Your task to perform on an android device: turn on notifications settings in the gmail app Image 0: 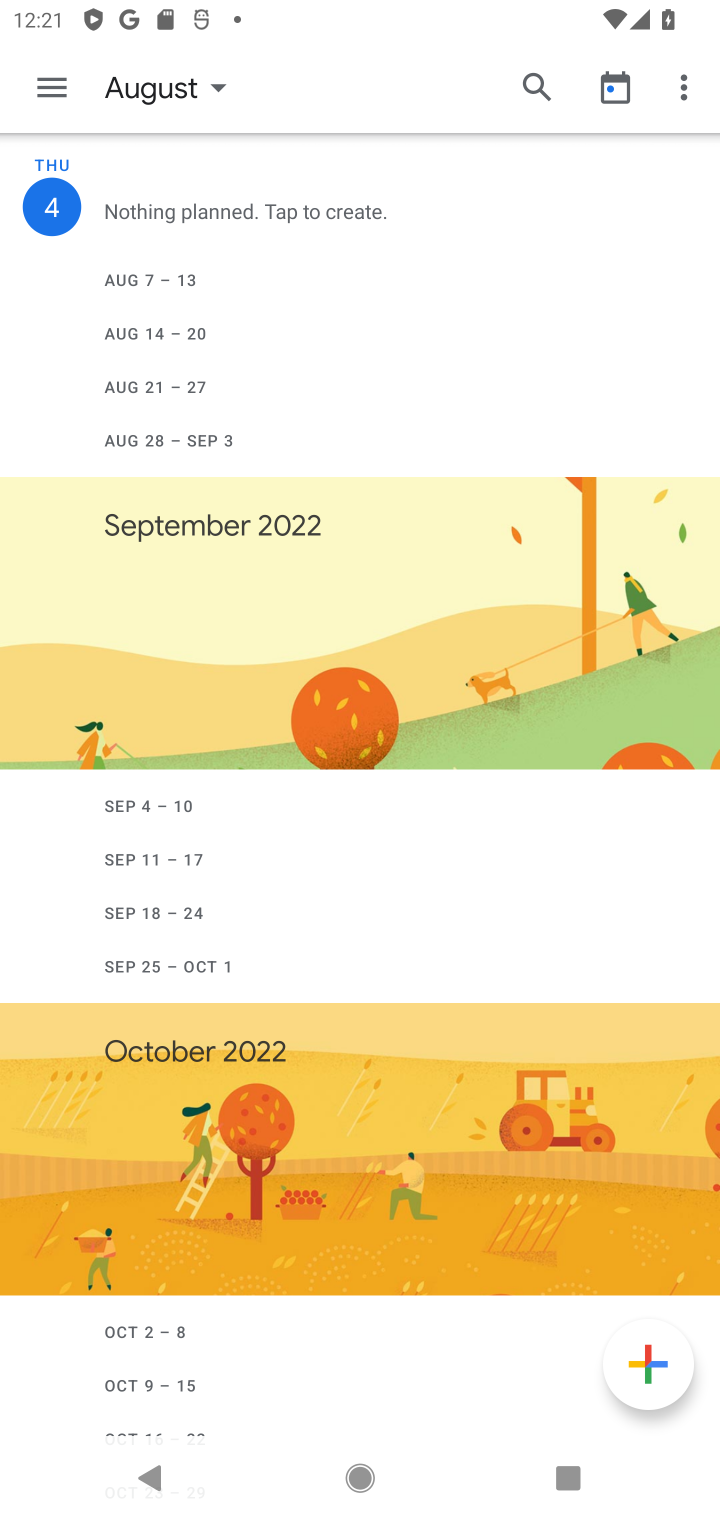
Step 0: press home button
Your task to perform on an android device: turn on notifications settings in the gmail app Image 1: 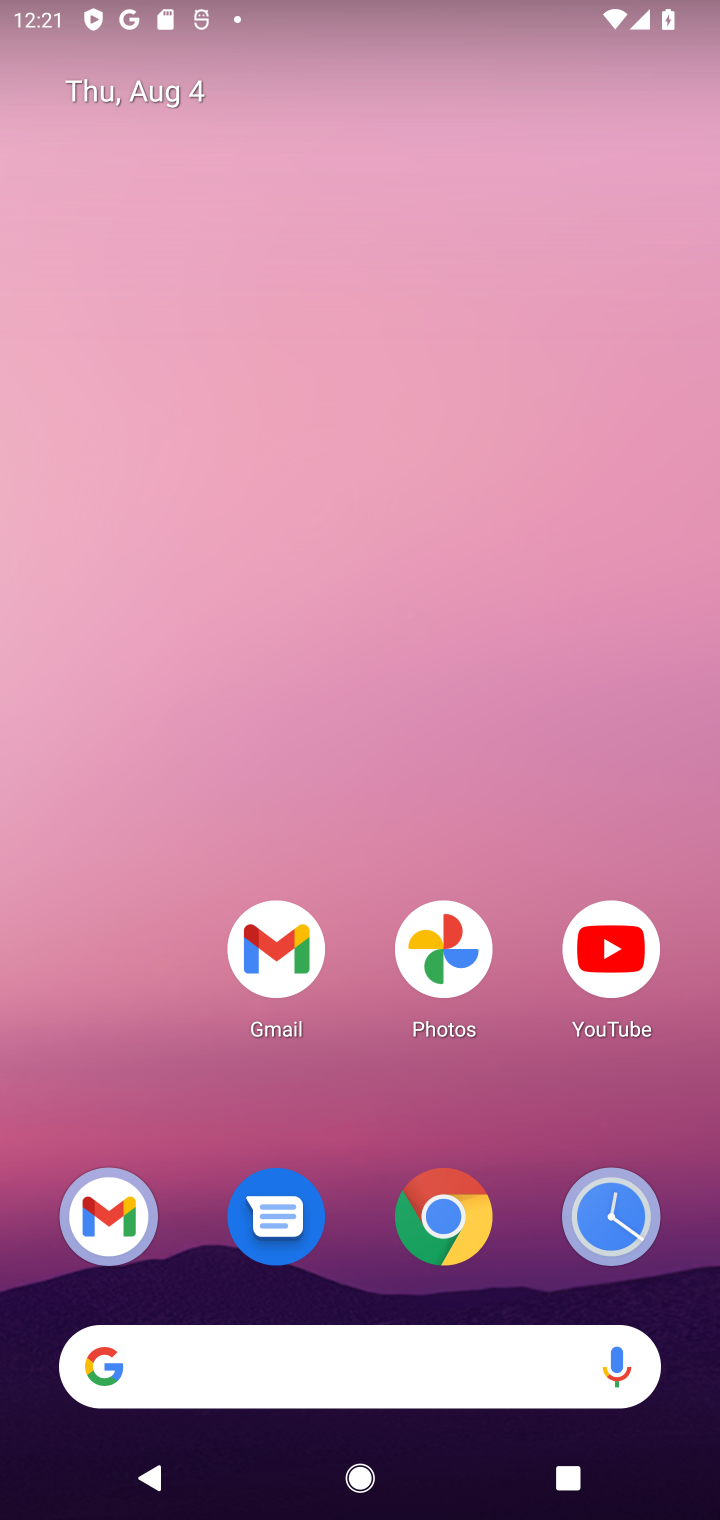
Step 1: drag from (343, 785) to (324, 237)
Your task to perform on an android device: turn on notifications settings in the gmail app Image 2: 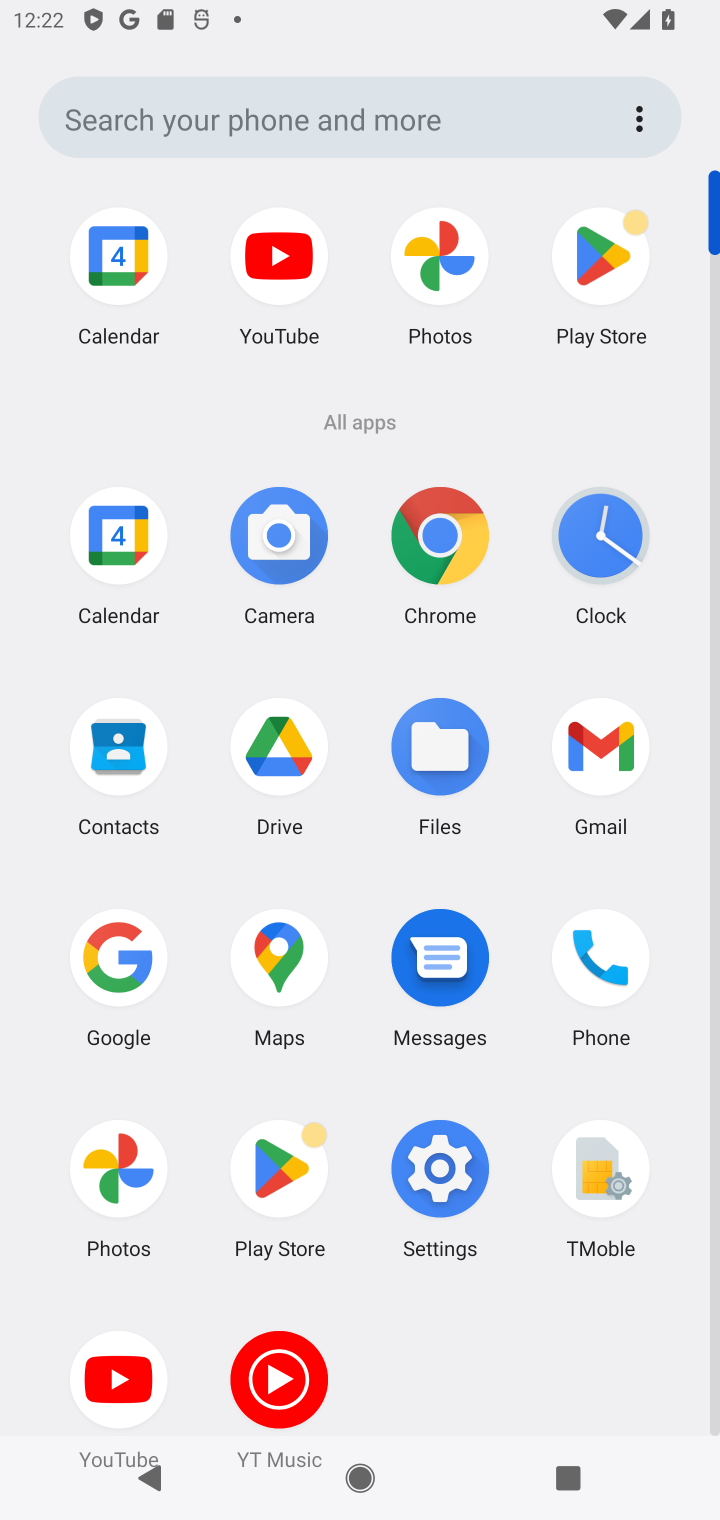
Step 2: click (604, 753)
Your task to perform on an android device: turn on notifications settings in the gmail app Image 3: 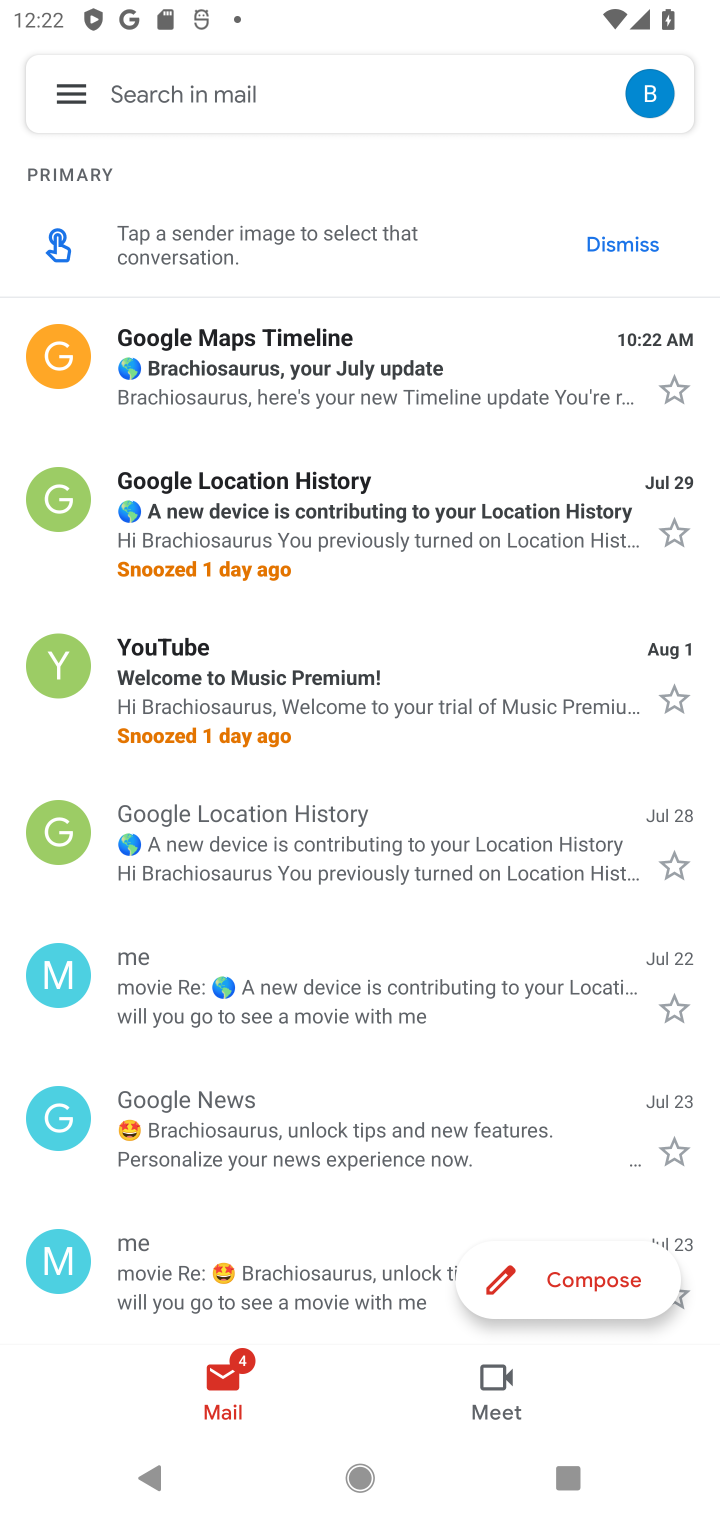
Step 3: task complete